Your task to perform on an android device: turn on improve location accuracy Image 0: 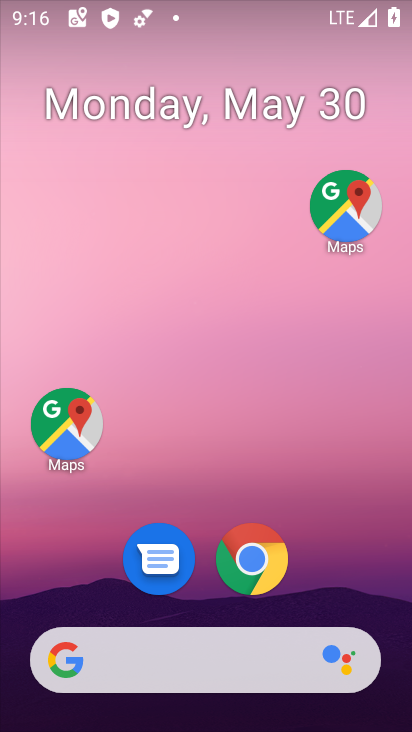
Step 0: drag from (321, 378) to (296, 3)
Your task to perform on an android device: turn on improve location accuracy Image 1: 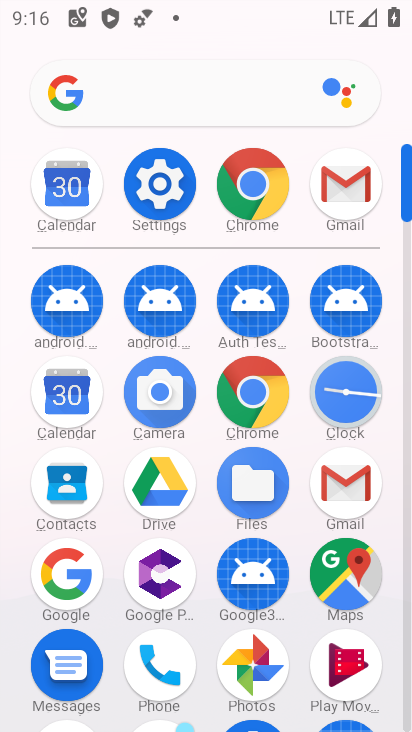
Step 1: click (163, 186)
Your task to perform on an android device: turn on improve location accuracy Image 2: 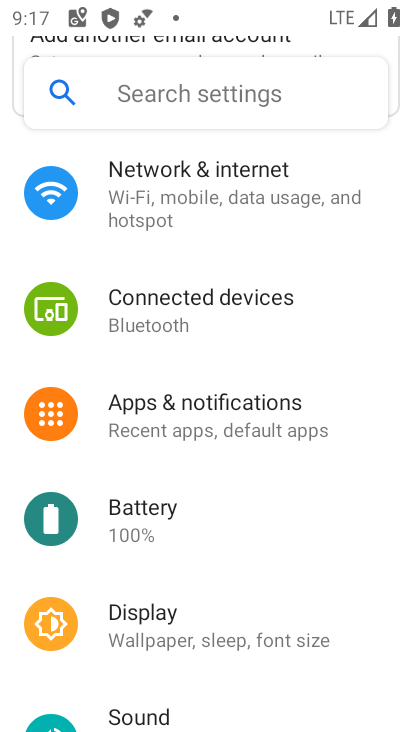
Step 2: drag from (243, 540) to (268, 144)
Your task to perform on an android device: turn on improve location accuracy Image 3: 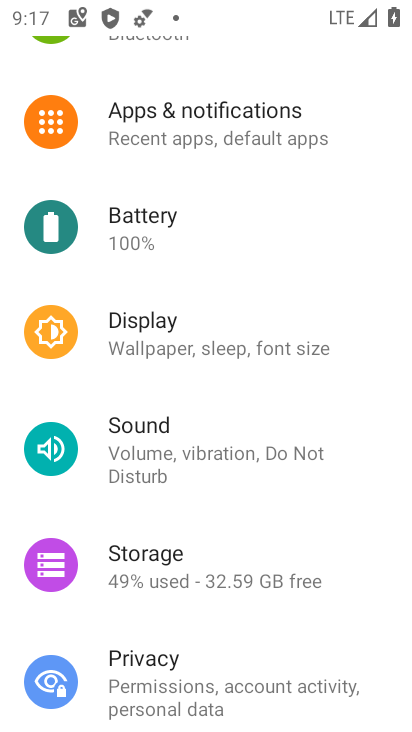
Step 3: drag from (200, 583) to (243, 177)
Your task to perform on an android device: turn on improve location accuracy Image 4: 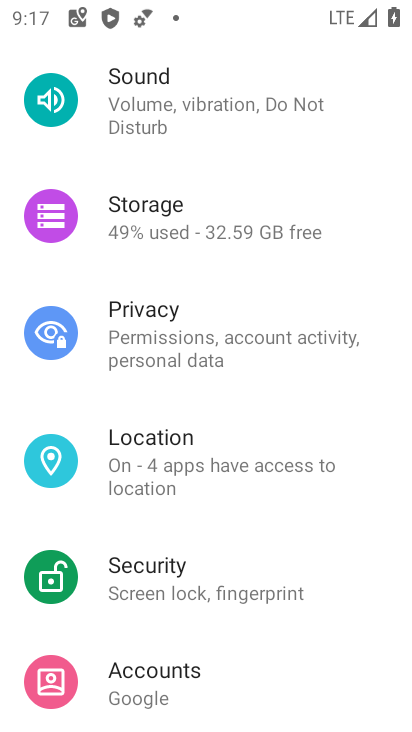
Step 4: click (187, 438)
Your task to perform on an android device: turn on improve location accuracy Image 5: 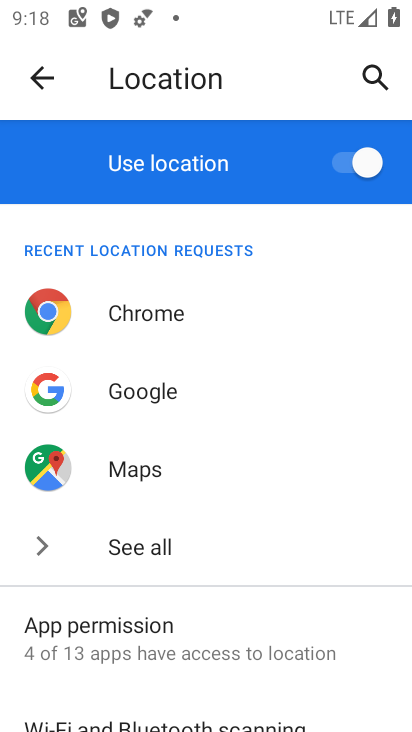
Step 5: drag from (283, 470) to (387, 68)
Your task to perform on an android device: turn on improve location accuracy Image 6: 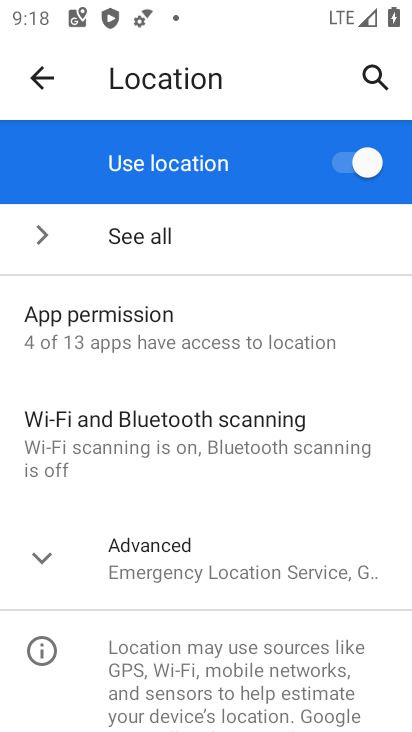
Step 6: click (192, 574)
Your task to perform on an android device: turn on improve location accuracy Image 7: 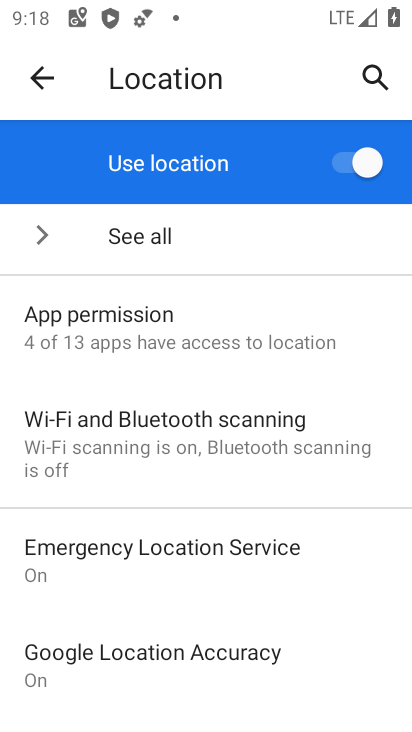
Step 7: click (232, 655)
Your task to perform on an android device: turn on improve location accuracy Image 8: 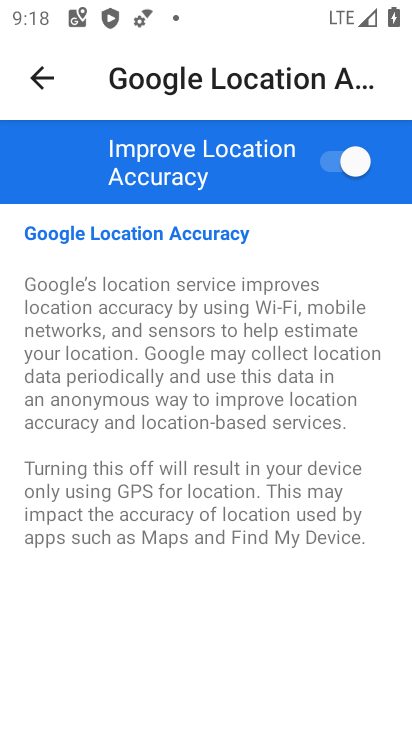
Step 8: task complete